Your task to perform on an android device: Open Chrome and go to the settings page Image 0: 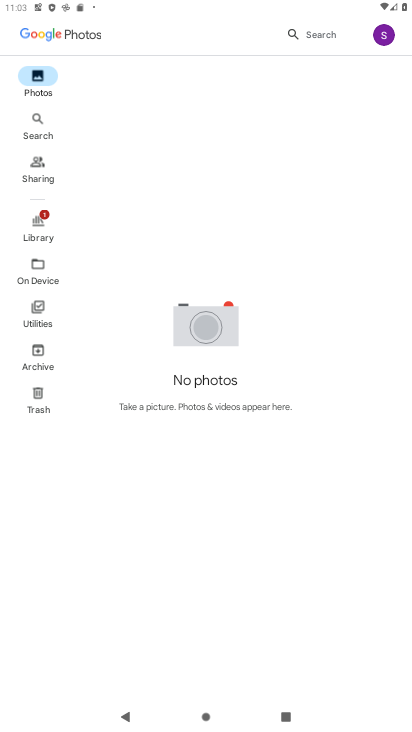
Step 0: press home button
Your task to perform on an android device: Open Chrome and go to the settings page Image 1: 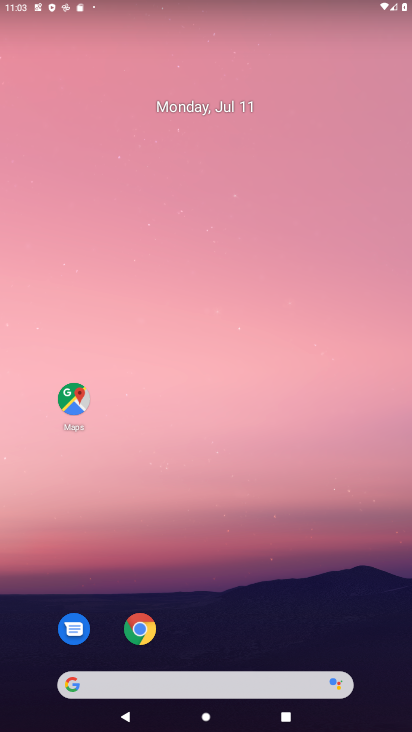
Step 1: click (145, 627)
Your task to perform on an android device: Open Chrome and go to the settings page Image 2: 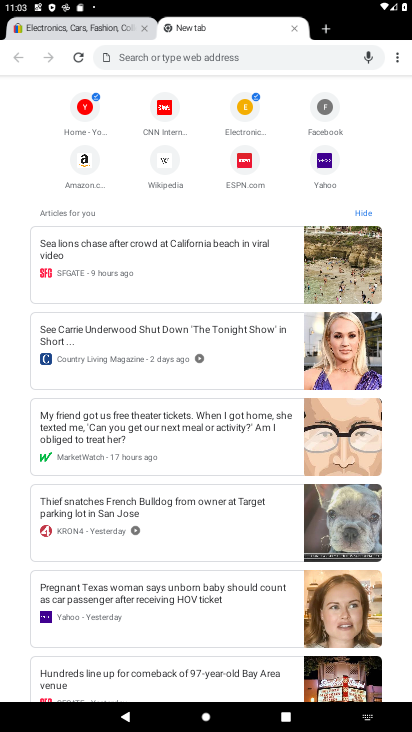
Step 2: click (389, 64)
Your task to perform on an android device: Open Chrome and go to the settings page Image 3: 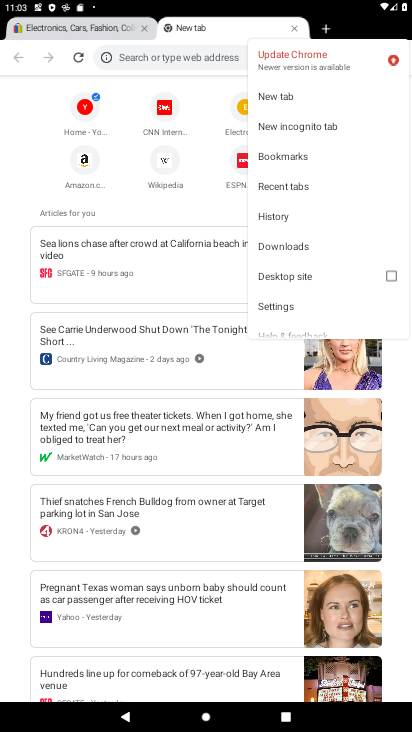
Step 3: click (281, 307)
Your task to perform on an android device: Open Chrome and go to the settings page Image 4: 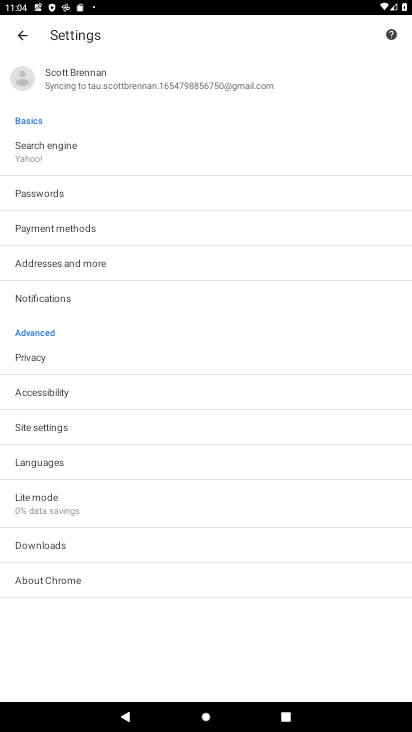
Step 4: task complete